Your task to perform on an android device: Open calendar and show me the third week of next month Image 0: 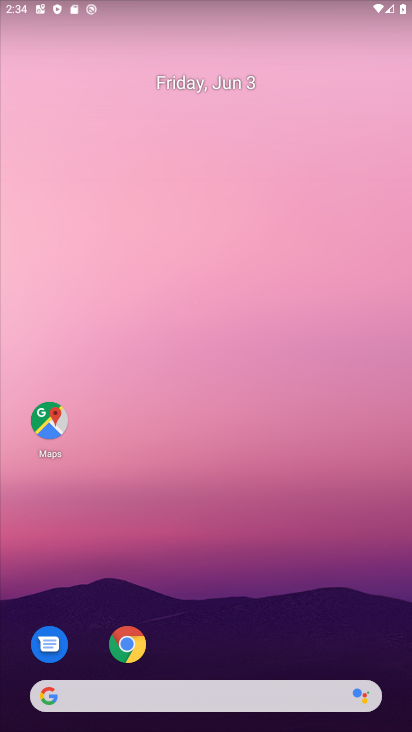
Step 0: drag from (189, 645) to (149, 243)
Your task to perform on an android device: Open calendar and show me the third week of next month Image 1: 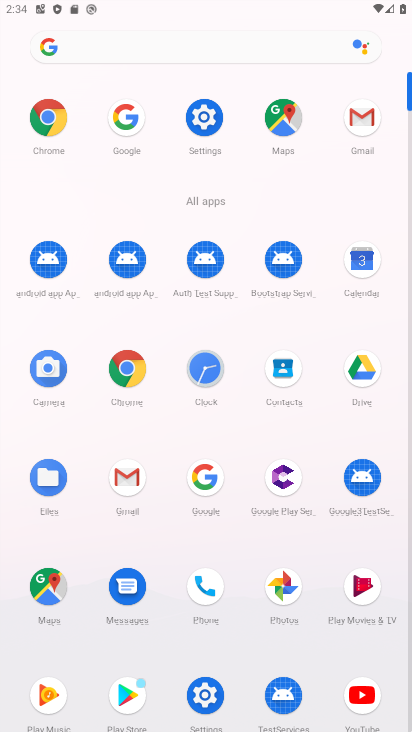
Step 1: click (348, 264)
Your task to perform on an android device: Open calendar and show me the third week of next month Image 2: 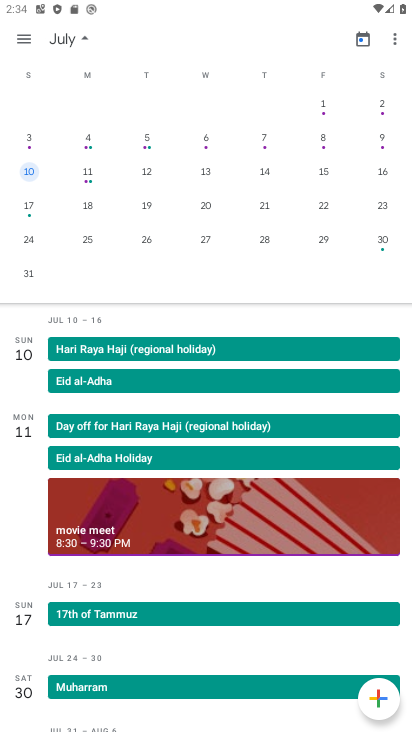
Step 2: click (31, 175)
Your task to perform on an android device: Open calendar and show me the third week of next month Image 3: 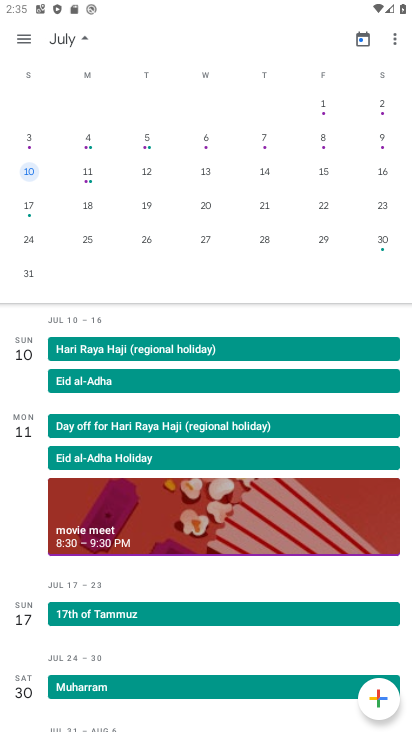
Step 3: task complete